Your task to perform on an android device: Is it going to rain tomorrow? Image 0: 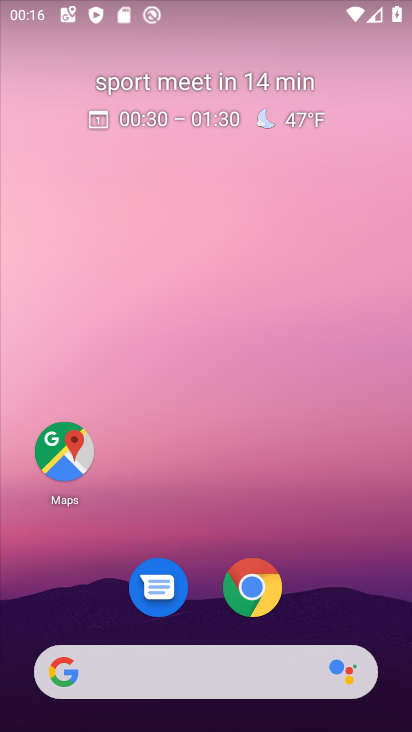
Step 0: drag from (388, 644) to (335, 217)
Your task to perform on an android device: Is it going to rain tomorrow? Image 1: 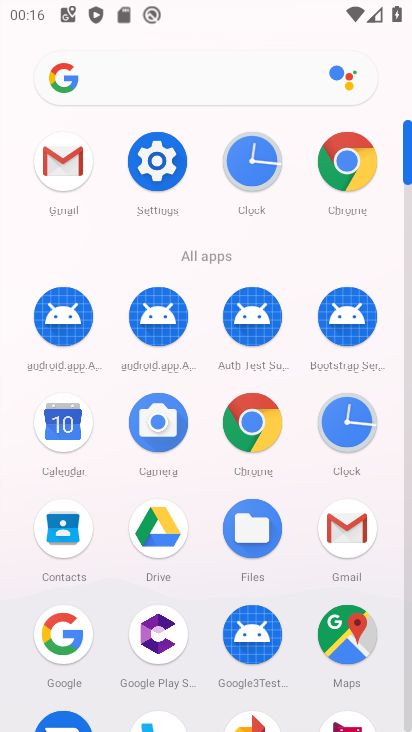
Step 1: press home button
Your task to perform on an android device: Is it going to rain tomorrow? Image 2: 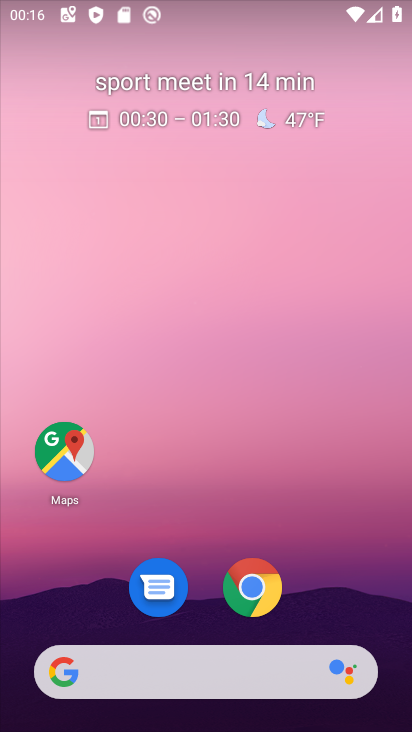
Step 2: click (299, 120)
Your task to perform on an android device: Is it going to rain tomorrow? Image 3: 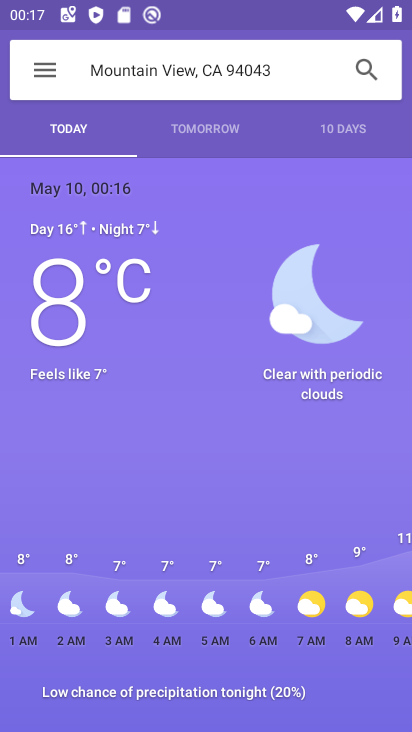
Step 3: task complete